Your task to perform on an android device: turn on translation in the chrome app Image 0: 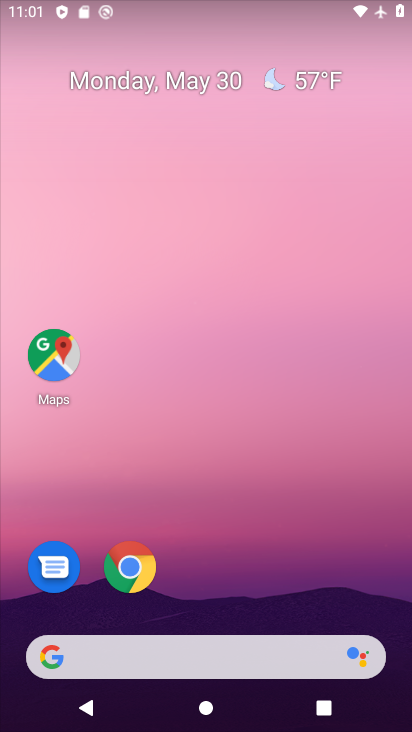
Step 0: click (145, 571)
Your task to perform on an android device: turn on translation in the chrome app Image 1: 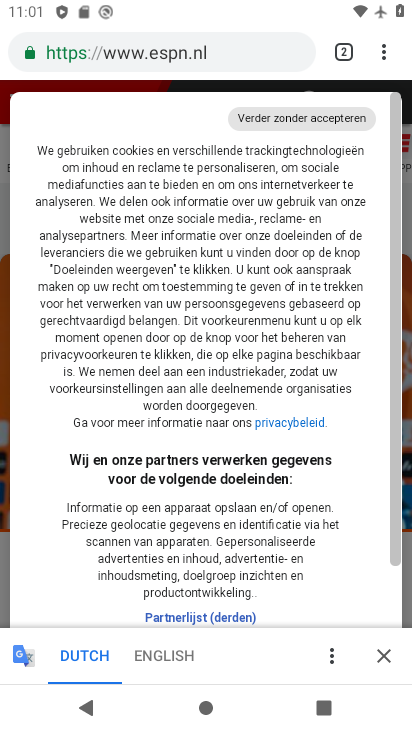
Step 1: click (377, 54)
Your task to perform on an android device: turn on translation in the chrome app Image 2: 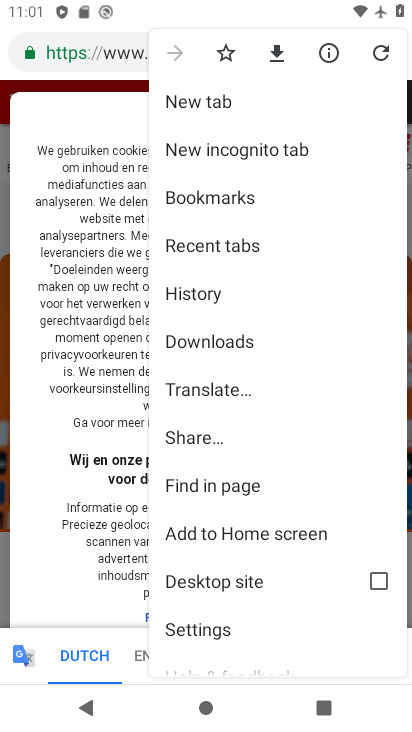
Step 2: click (244, 630)
Your task to perform on an android device: turn on translation in the chrome app Image 3: 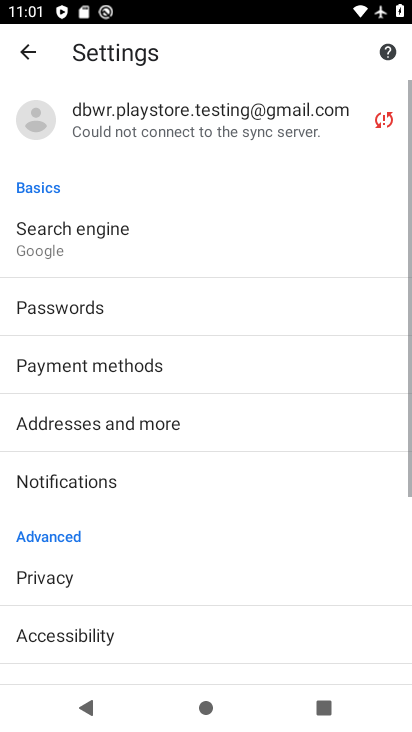
Step 3: drag from (201, 582) to (171, 245)
Your task to perform on an android device: turn on translation in the chrome app Image 4: 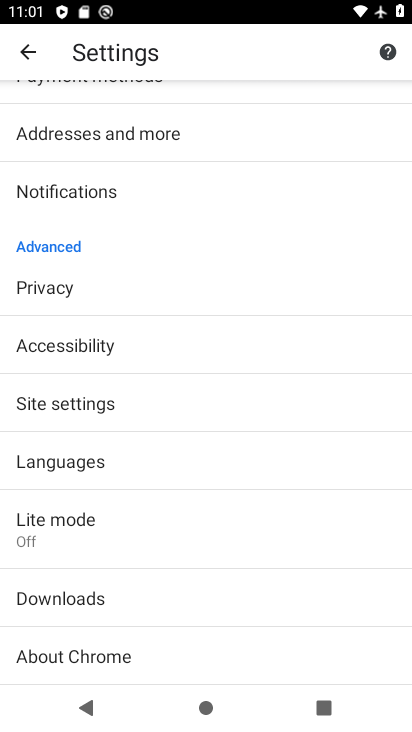
Step 4: click (162, 456)
Your task to perform on an android device: turn on translation in the chrome app Image 5: 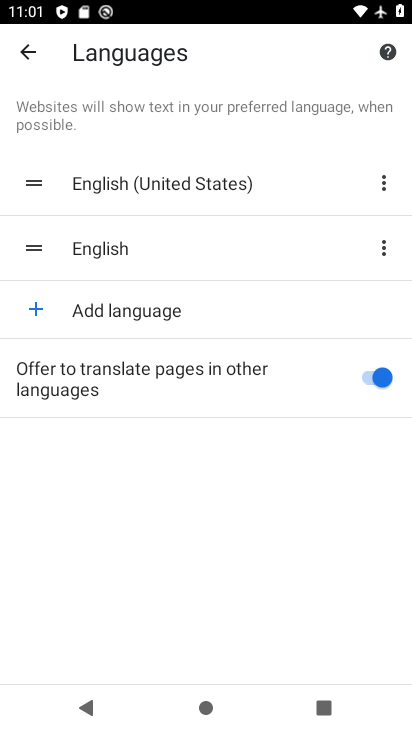
Step 5: task complete